Your task to perform on an android device: Go to wifi settings Image 0: 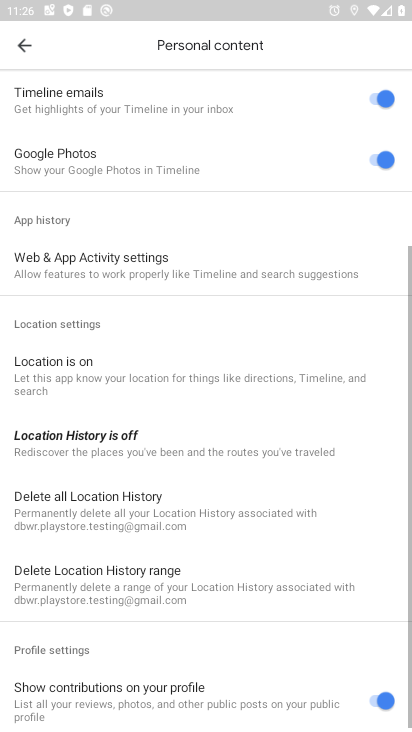
Step 0: press home button
Your task to perform on an android device: Go to wifi settings Image 1: 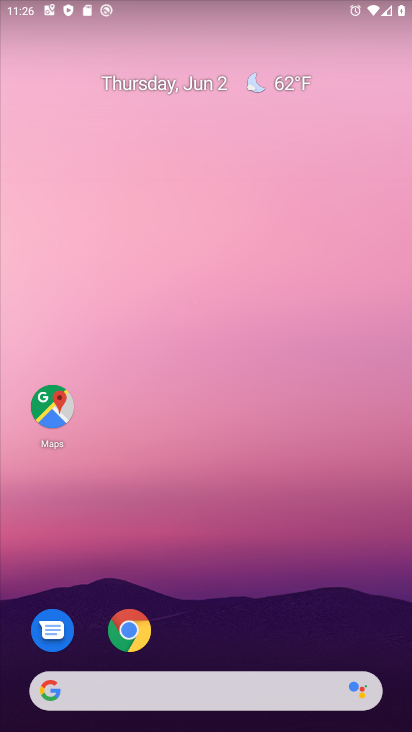
Step 1: drag from (150, 698) to (319, 126)
Your task to perform on an android device: Go to wifi settings Image 2: 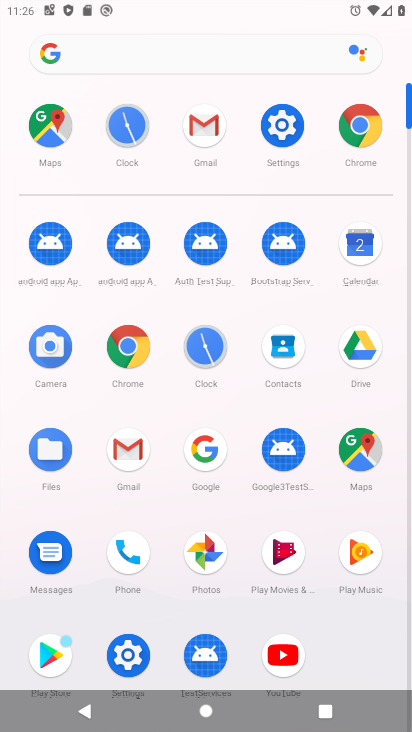
Step 2: click (275, 120)
Your task to perform on an android device: Go to wifi settings Image 3: 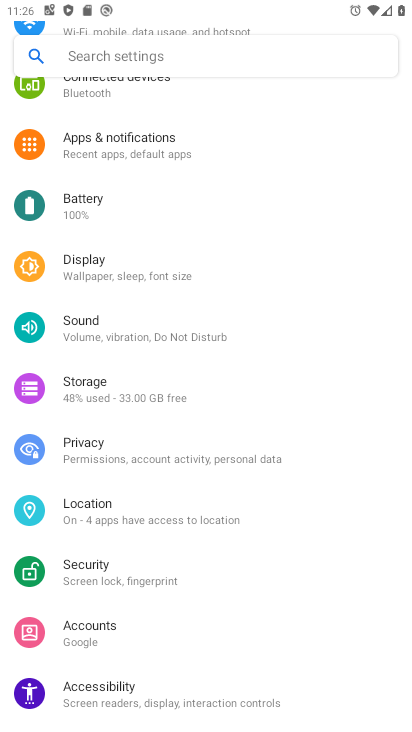
Step 3: drag from (306, 178) to (200, 650)
Your task to perform on an android device: Go to wifi settings Image 4: 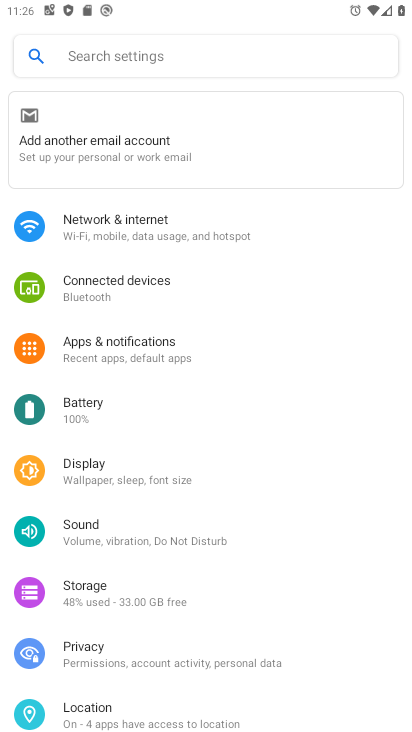
Step 4: click (133, 230)
Your task to perform on an android device: Go to wifi settings Image 5: 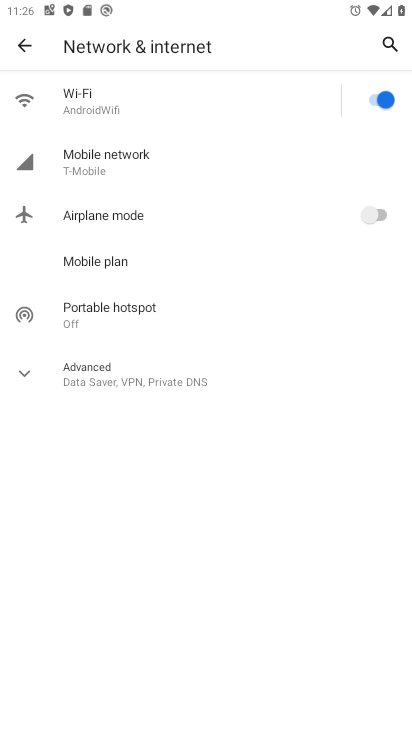
Step 5: click (88, 103)
Your task to perform on an android device: Go to wifi settings Image 6: 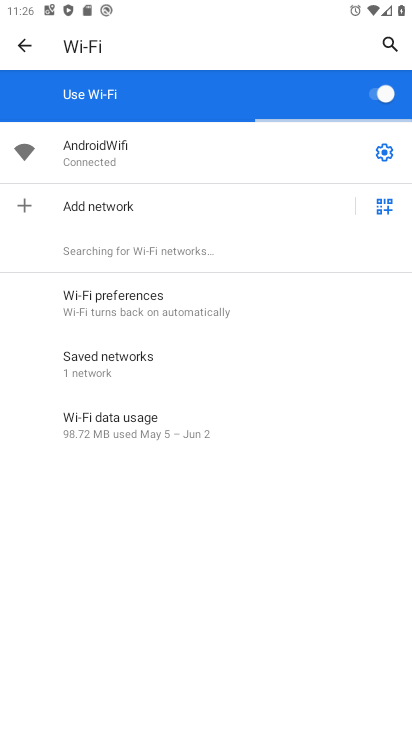
Step 6: task complete